Your task to perform on an android device: allow cookies in the chrome app Image 0: 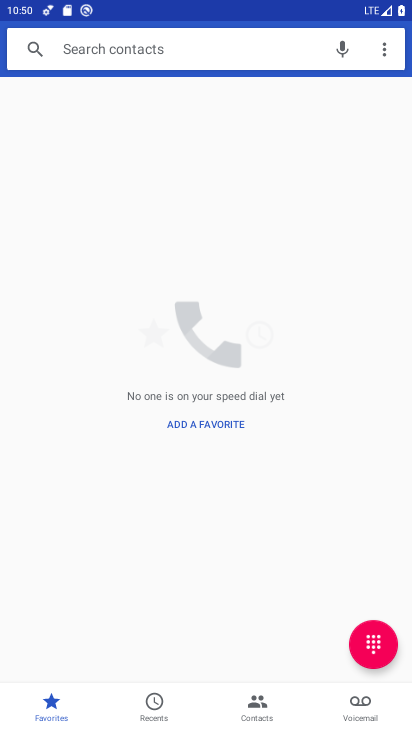
Step 0: press home button
Your task to perform on an android device: allow cookies in the chrome app Image 1: 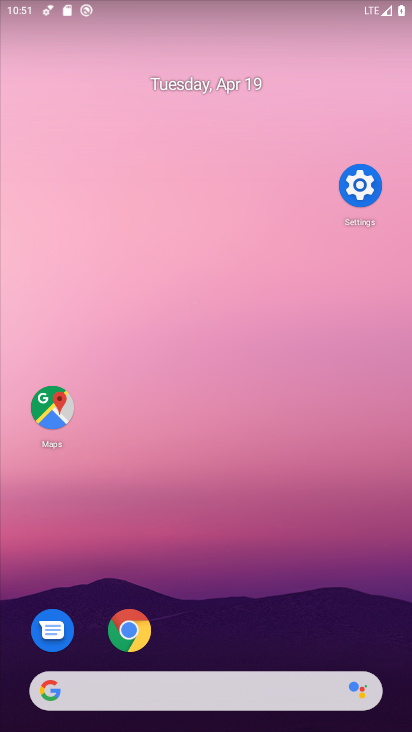
Step 1: click (123, 641)
Your task to perform on an android device: allow cookies in the chrome app Image 2: 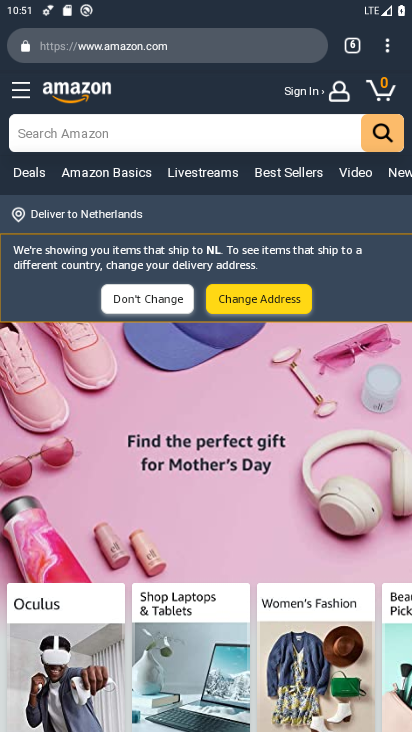
Step 2: click (382, 47)
Your task to perform on an android device: allow cookies in the chrome app Image 3: 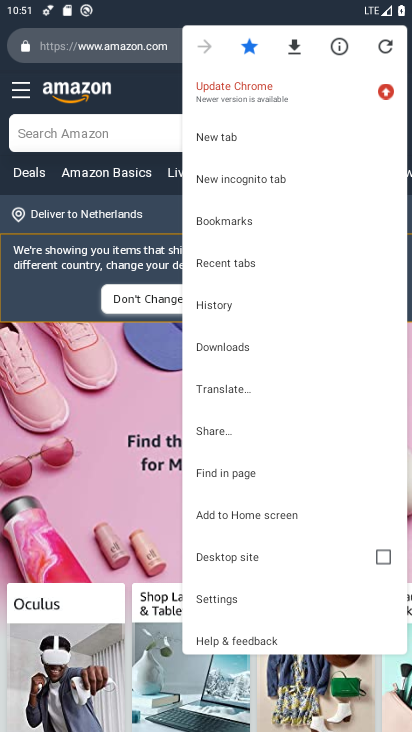
Step 3: click (257, 598)
Your task to perform on an android device: allow cookies in the chrome app Image 4: 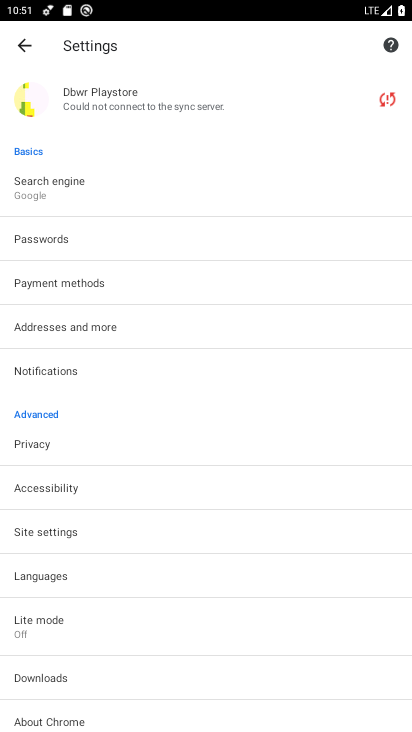
Step 4: click (93, 533)
Your task to perform on an android device: allow cookies in the chrome app Image 5: 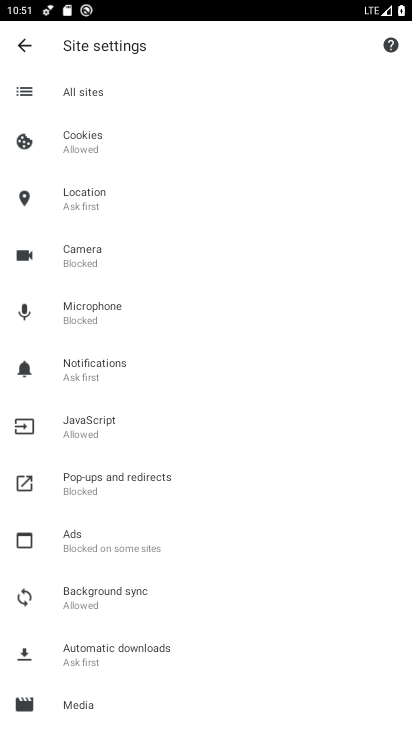
Step 5: click (135, 139)
Your task to perform on an android device: allow cookies in the chrome app Image 6: 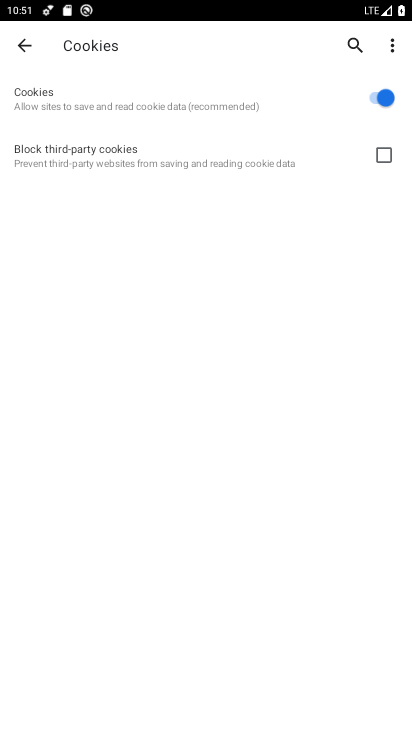
Step 6: task complete